Your task to perform on an android device: Open Youtube and go to the subscriptions tab Image 0: 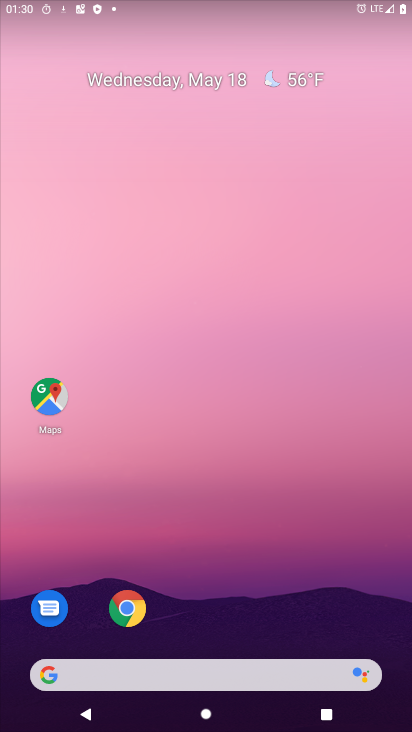
Step 0: press home button
Your task to perform on an android device: Open Youtube and go to the subscriptions tab Image 1: 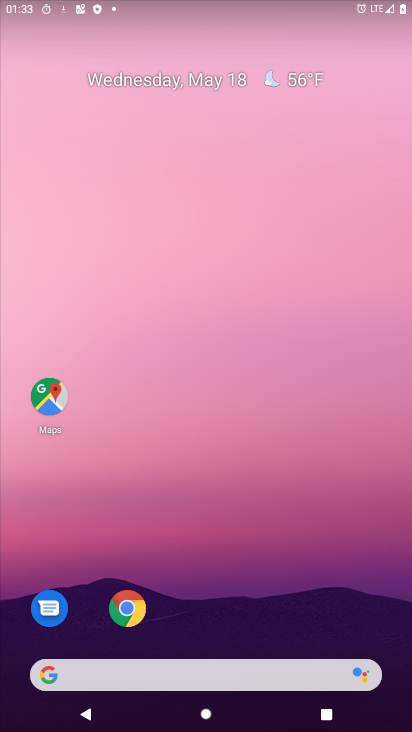
Step 1: drag from (270, 679) to (320, 245)
Your task to perform on an android device: Open Youtube and go to the subscriptions tab Image 2: 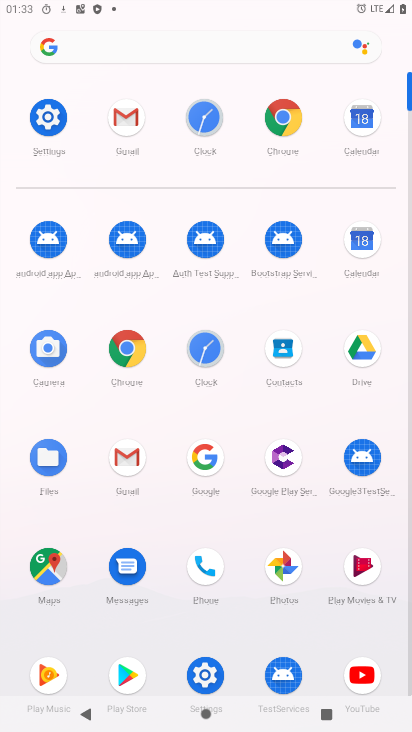
Step 2: click (352, 654)
Your task to perform on an android device: Open Youtube and go to the subscriptions tab Image 3: 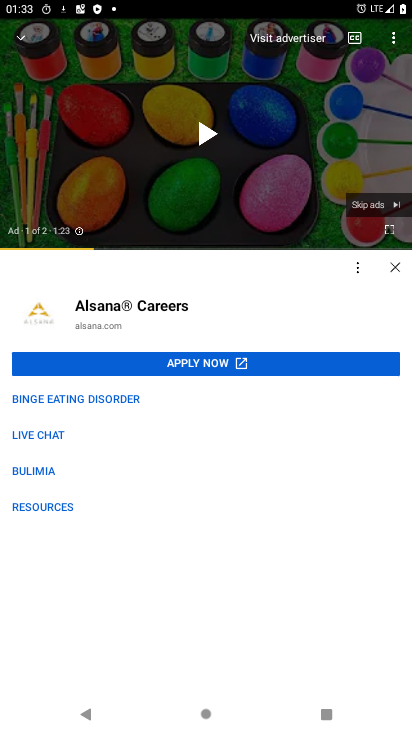
Step 3: click (21, 42)
Your task to perform on an android device: Open Youtube and go to the subscriptions tab Image 4: 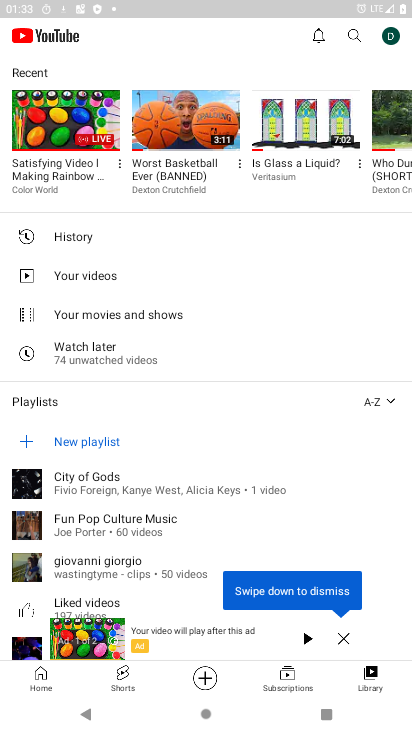
Step 4: click (301, 675)
Your task to perform on an android device: Open Youtube and go to the subscriptions tab Image 5: 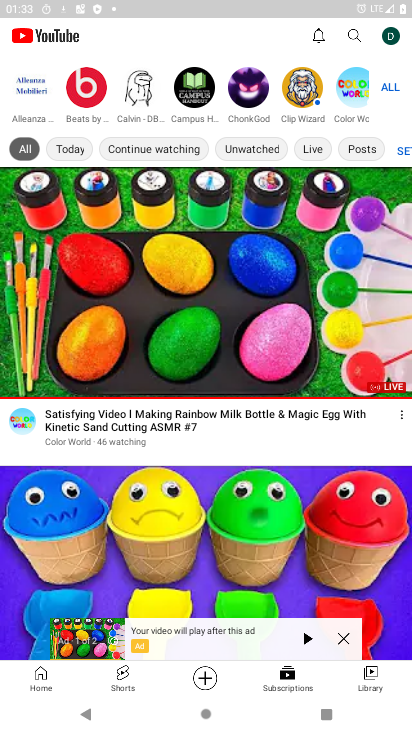
Step 5: task complete